Your task to perform on an android device: Go to Android settings Image 0: 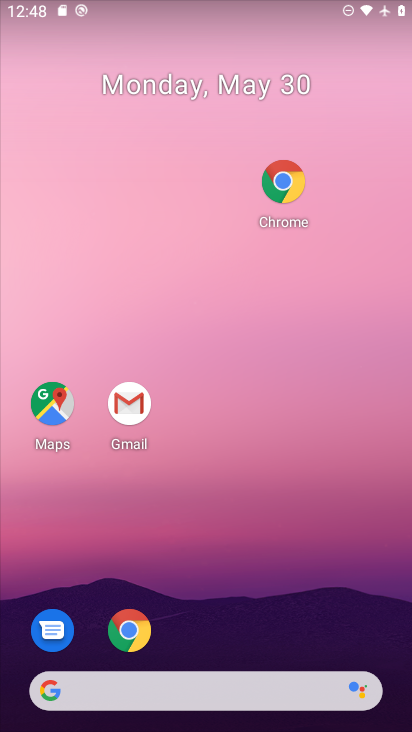
Step 0: drag from (261, 714) to (151, 161)
Your task to perform on an android device: Go to Android settings Image 1: 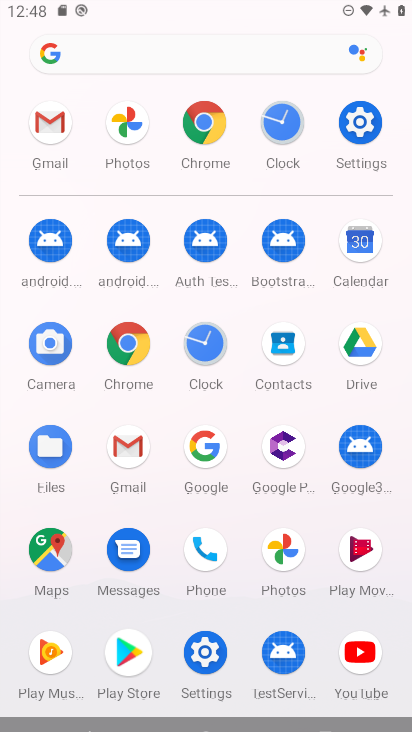
Step 1: click (356, 127)
Your task to perform on an android device: Go to Android settings Image 2: 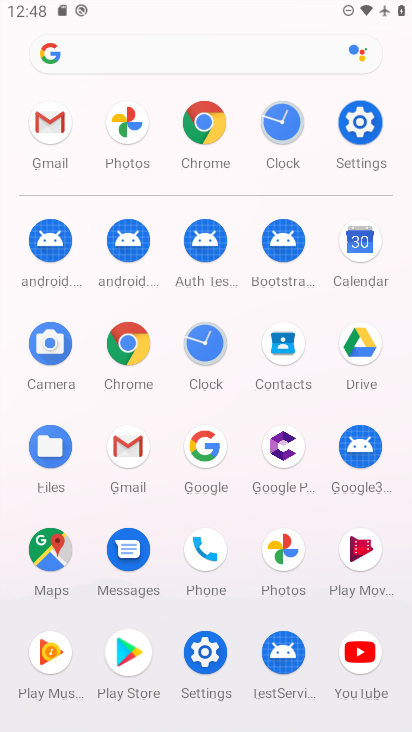
Step 2: click (364, 123)
Your task to perform on an android device: Go to Android settings Image 3: 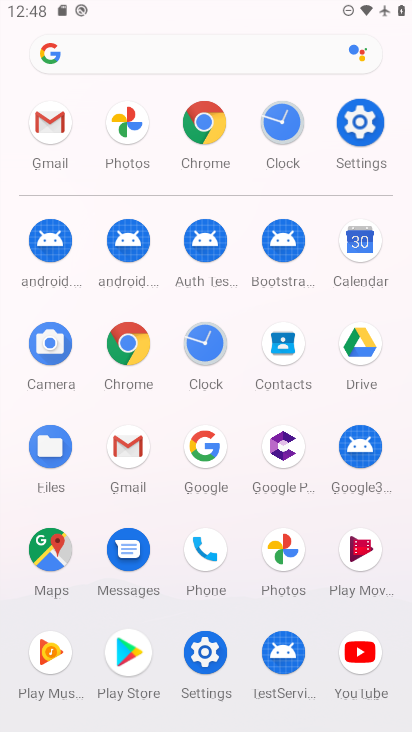
Step 3: click (368, 124)
Your task to perform on an android device: Go to Android settings Image 4: 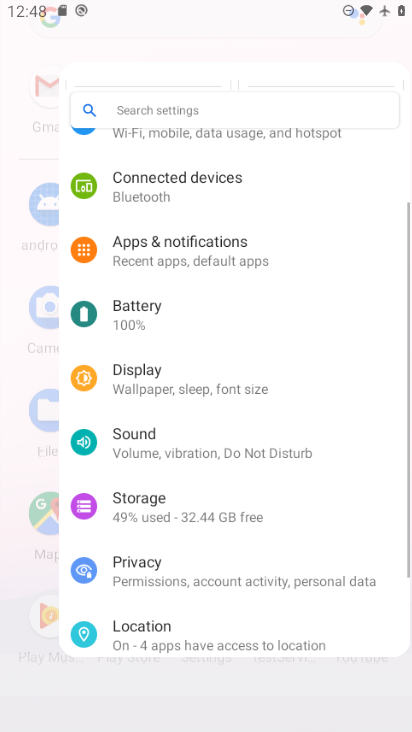
Step 4: click (369, 124)
Your task to perform on an android device: Go to Android settings Image 5: 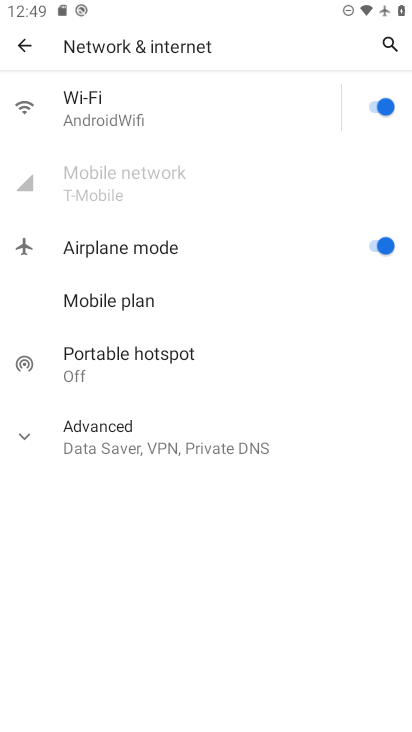
Step 5: task complete